Your task to perform on an android device: toggle javascript in the chrome app Image 0: 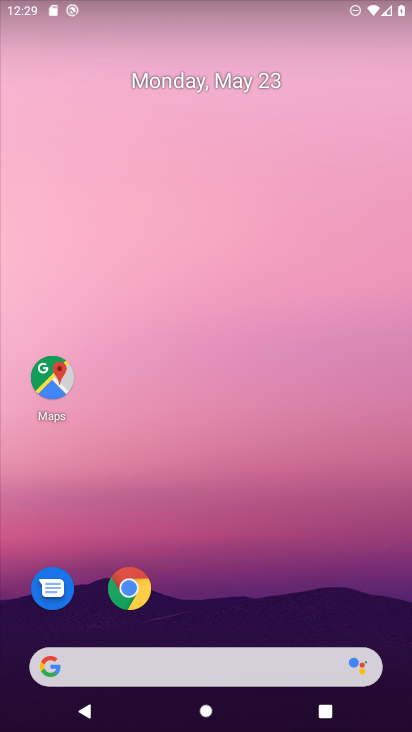
Step 0: click (135, 592)
Your task to perform on an android device: toggle javascript in the chrome app Image 1: 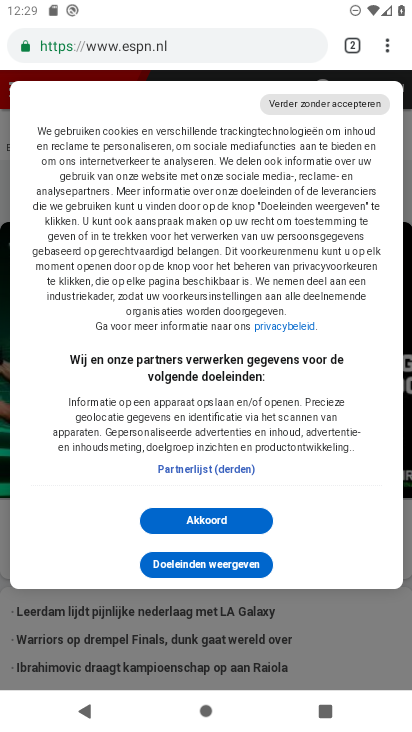
Step 1: click (390, 46)
Your task to perform on an android device: toggle javascript in the chrome app Image 2: 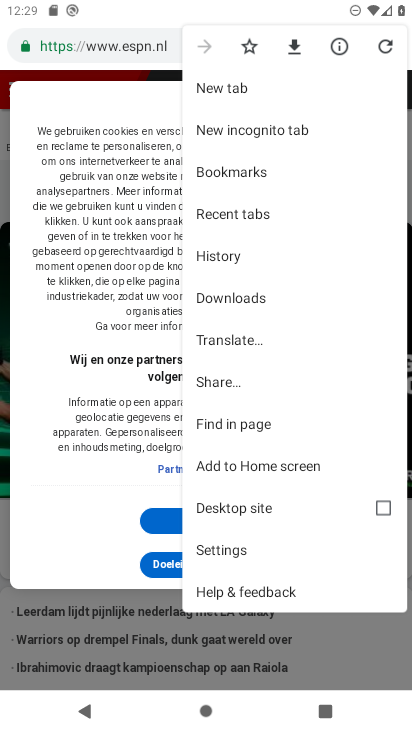
Step 2: click (235, 547)
Your task to perform on an android device: toggle javascript in the chrome app Image 3: 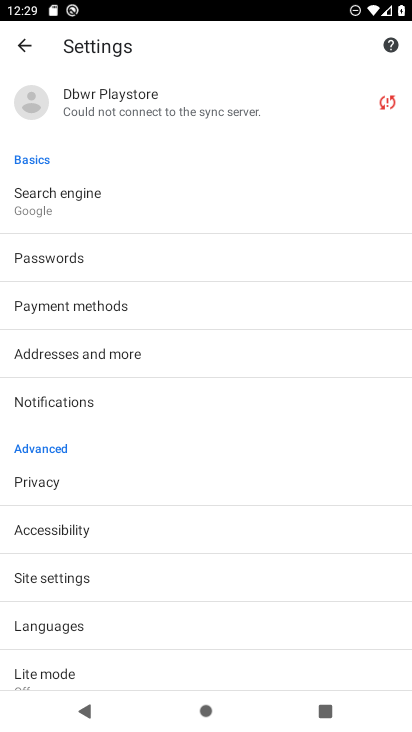
Step 3: drag from (150, 665) to (137, 330)
Your task to perform on an android device: toggle javascript in the chrome app Image 4: 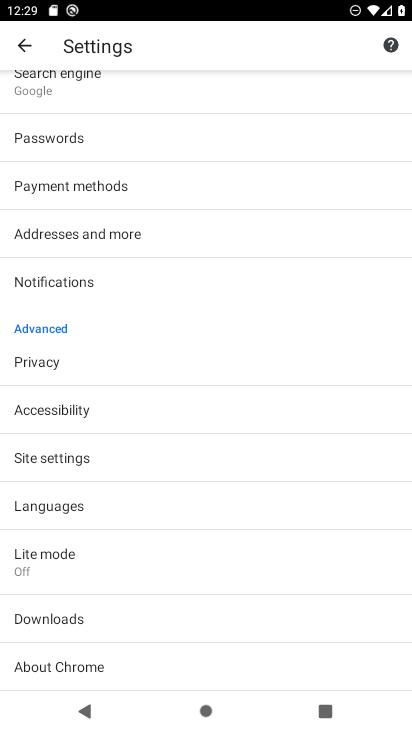
Step 4: click (34, 459)
Your task to perform on an android device: toggle javascript in the chrome app Image 5: 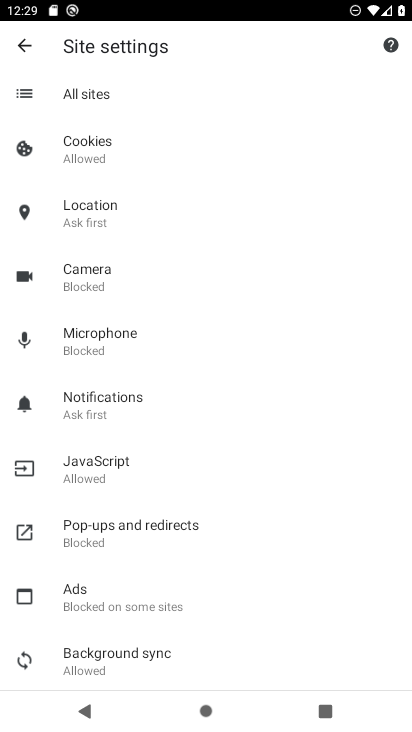
Step 5: click (123, 473)
Your task to perform on an android device: toggle javascript in the chrome app Image 6: 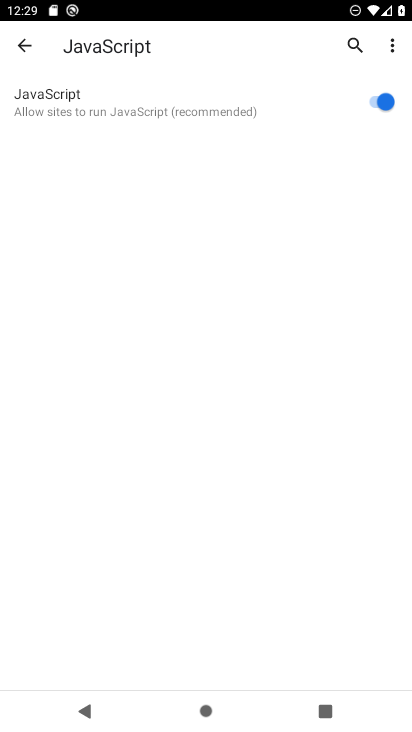
Step 6: click (374, 93)
Your task to perform on an android device: toggle javascript in the chrome app Image 7: 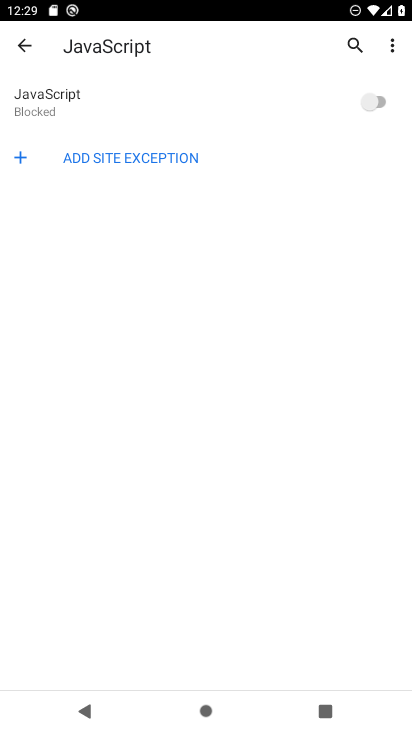
Step 7: task complete